Your task to perform on an android device: Go to battery settings Image 0: 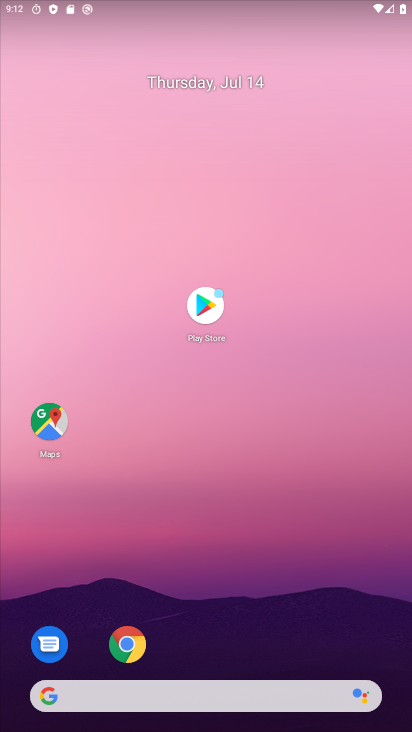
Step 0: drag from (224, 633) to (248, 339)
Your task to perform on an android device: Go to battery settings Image 1: 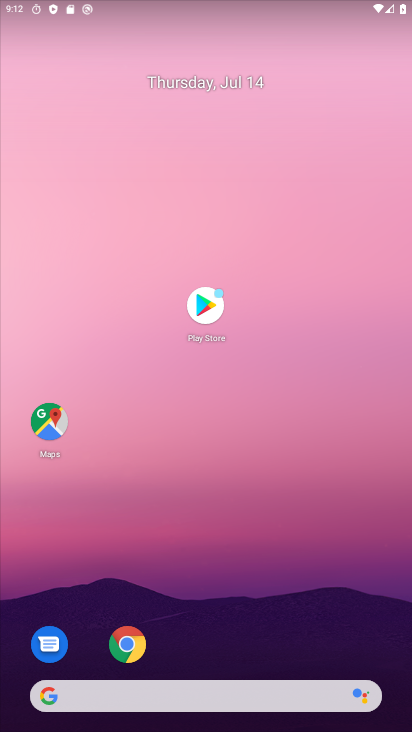
Step 1: drag from (184, 634) to (249, 373)
Your task to perform on an android device: Go to battery settings Image 2: 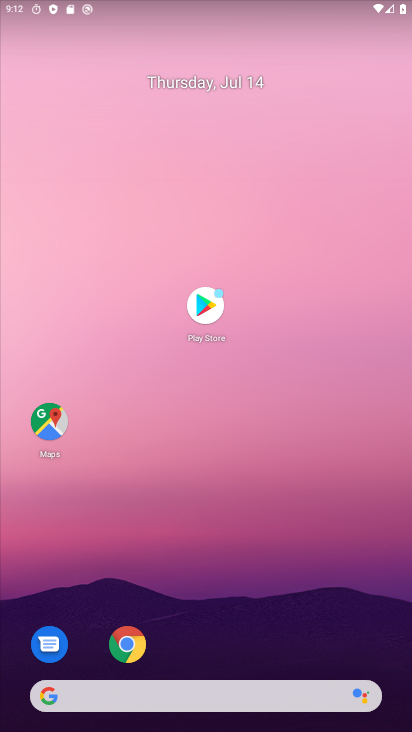
Step 2: drag from (188, 545) to (270, 180)
Your task to perform on an android device: Go to battery settings Image 3: 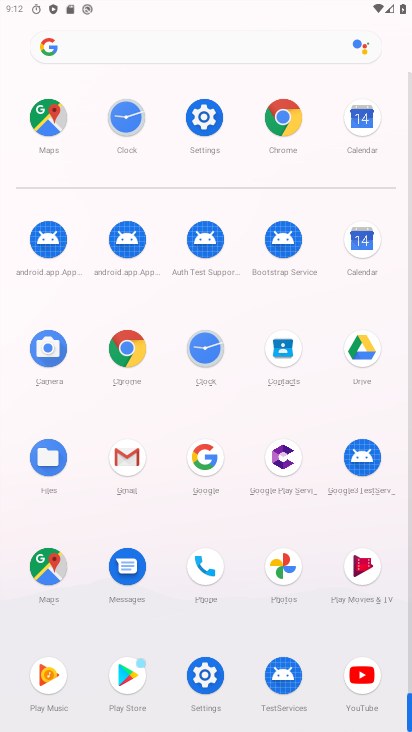
Step 3: click (199, 124)
Your task to perform on an android device: Go to battery settings Image 4: 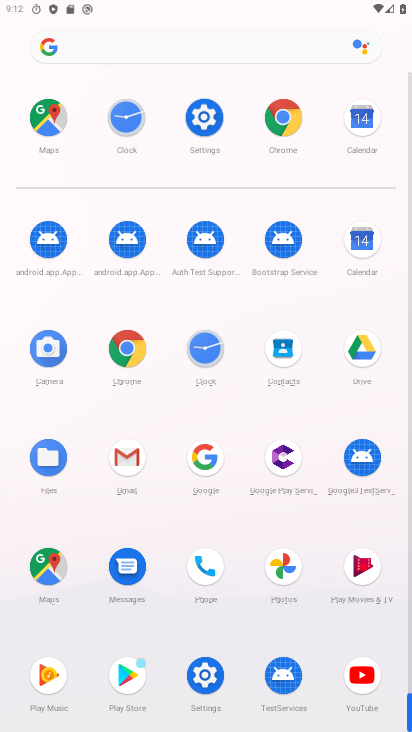
Step 4: click (199, 124)
Your task to perform on an android device: Go to battery settings Image 5: 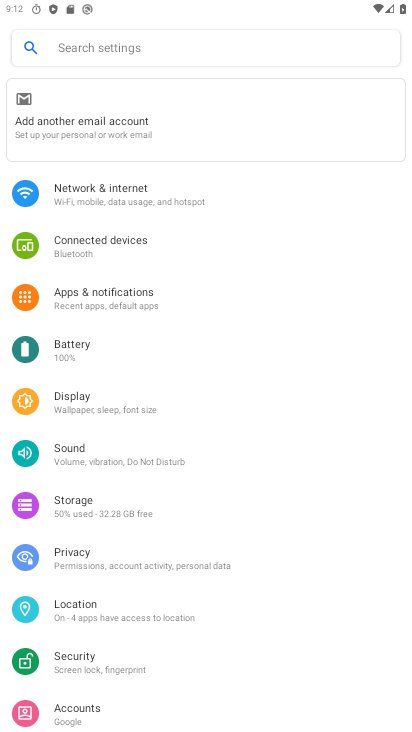
Step 5: click (79, 347)
Your task to perform on an android device: Go to battery settings Image 6: 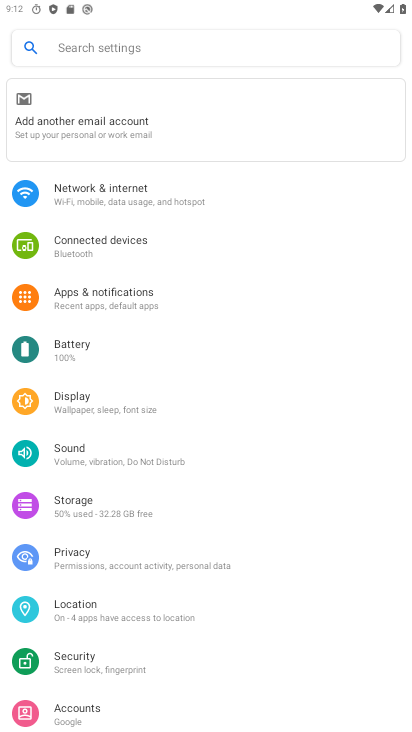
Step 6: click (80, 346)
Your task to perform on an android device: Go to battery settings Image 7: 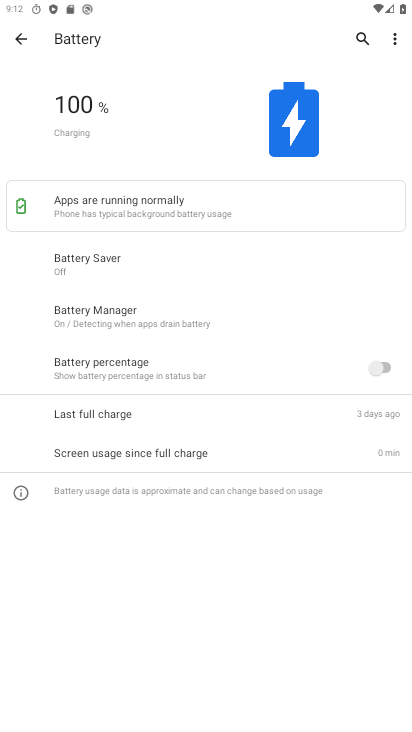
Step 7: task complete